Your task to perform on an android device: delete a single message in the gmail app Image 0: 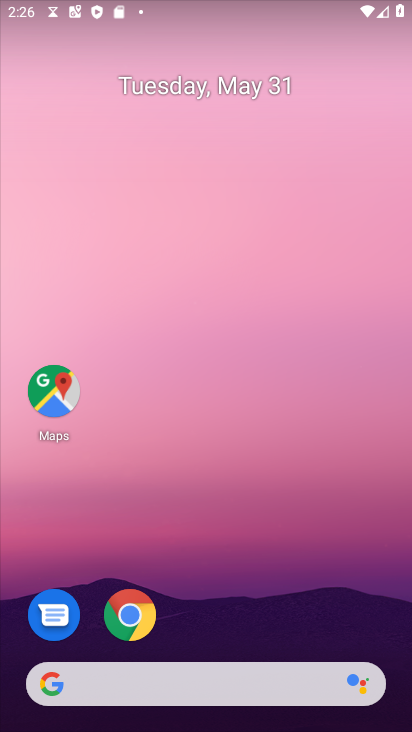
Step 0: drag from (254, 645) to (170, 3)
Your task to perform on an android device: delete a single message in the gmail app Image 1: 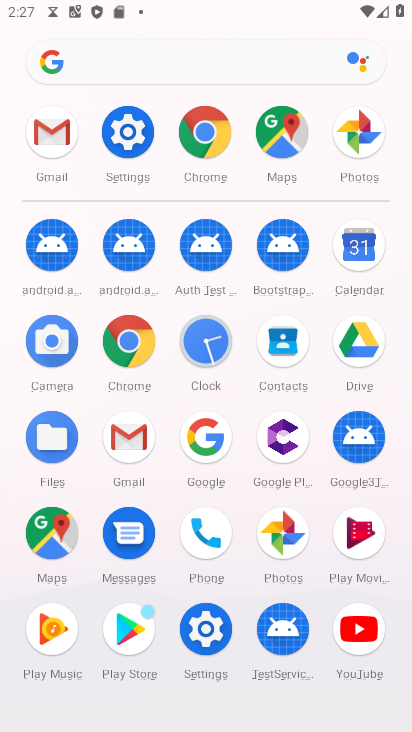
Step 1: click (118, 427)
Your task to perform on an android device: delete a single message in the gmail app Image 2: 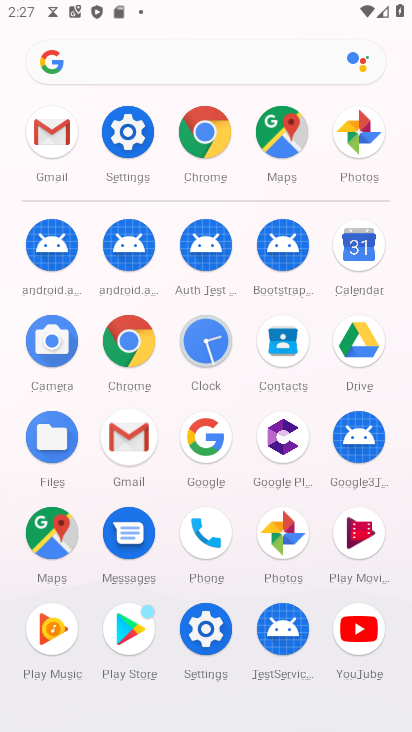
Step 2: click (126, 431)
Your task to perform on an android device: delete a single message in the gmail app Image 3: 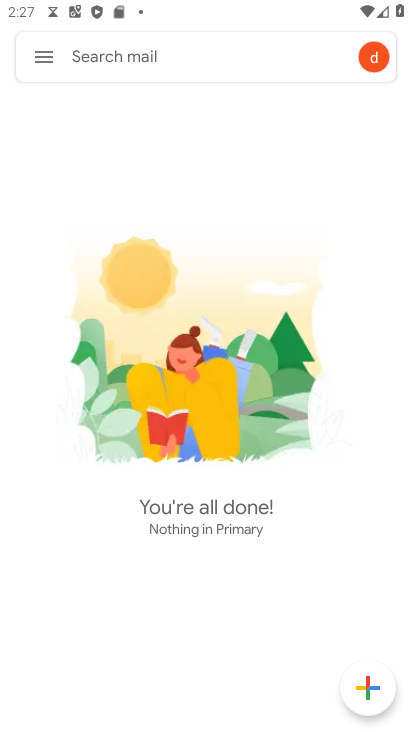
Step 3: click (47, 47)
Your task to perform on an android device: delete a single message in the gmail app Image 4: 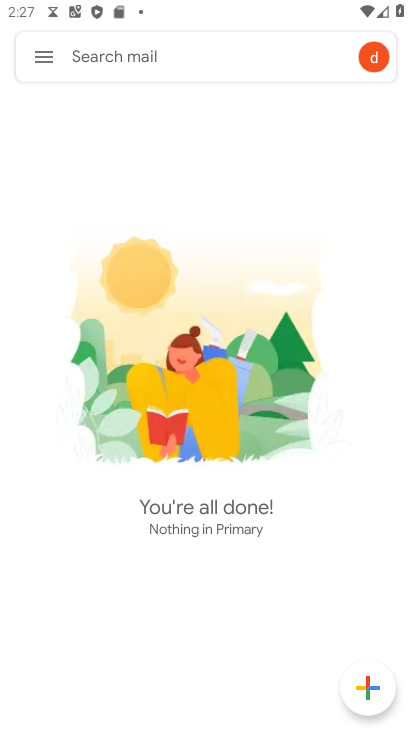
Step 4: click (50, 55)
Your task to perform on an android device: delete a single message in the gmail app Image 5: 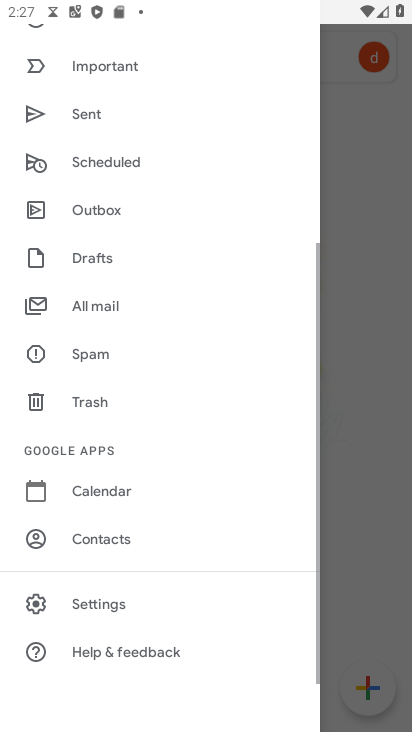
Step 5: drag from (47, 57) to (79, 534)
Your task to perform on an android device: delete a single message in the gmail app Image 6: 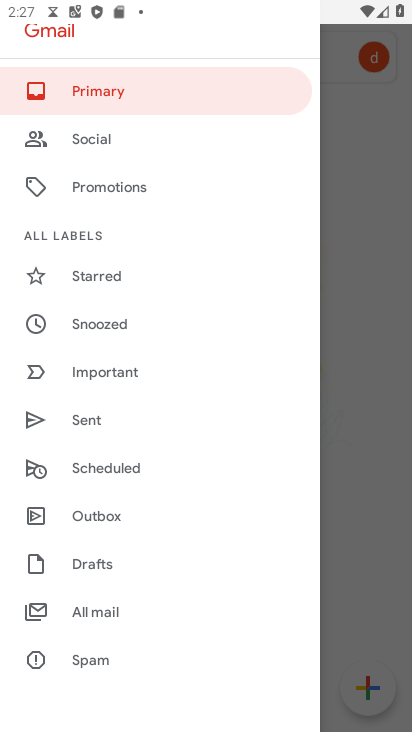
Step 6: click (88, 616)
Your task to perform on an android device: delete a single message in the gmail app Image 7: 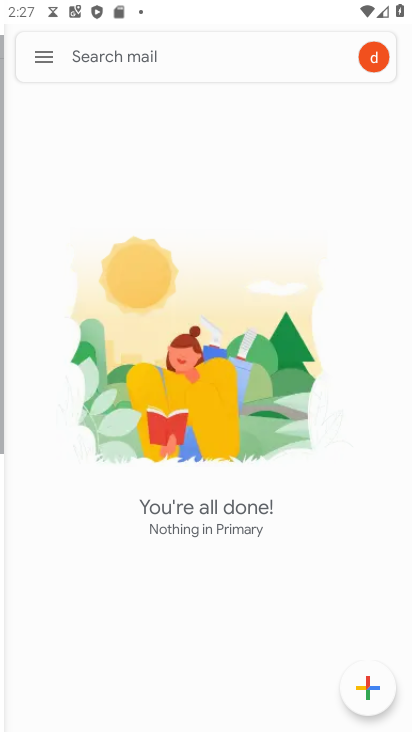
Step 7: click (92, 612)
Your task to perform on an android device: delete a single message in the gmail app Image 8: 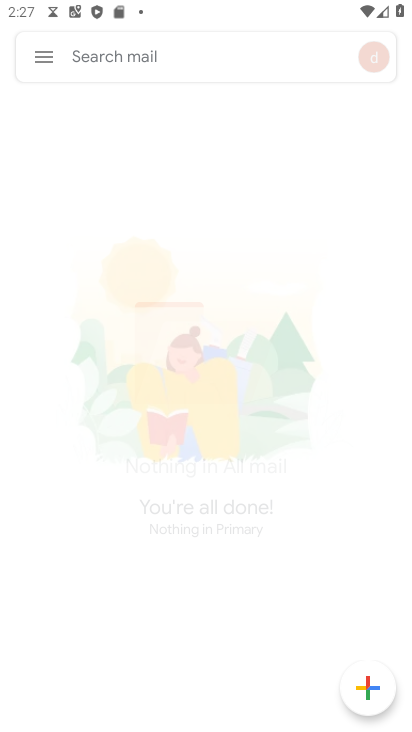
Step 8: click (94, 612)
Your task to perform on an android device: delete a single message in the gmail app Image 9: 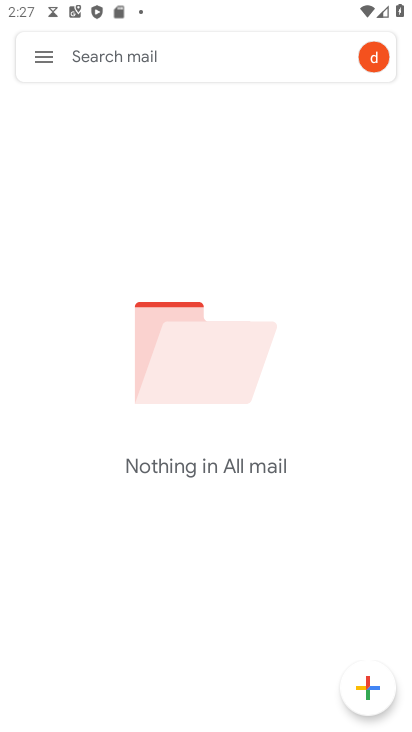
Step 9: task complete